Your task to perform on an android device: Do I have any events tomorrow? Image 0: 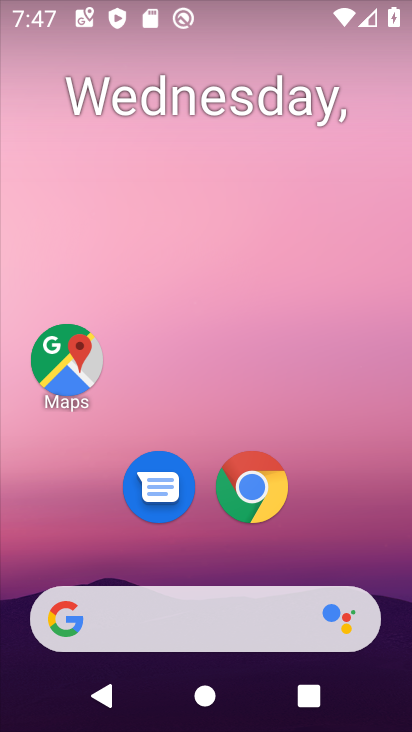
Step 0: drag from (357, 533) to (358, 146)
Your task to perform on an android device: Do I have any events tomorrow? Image 1: 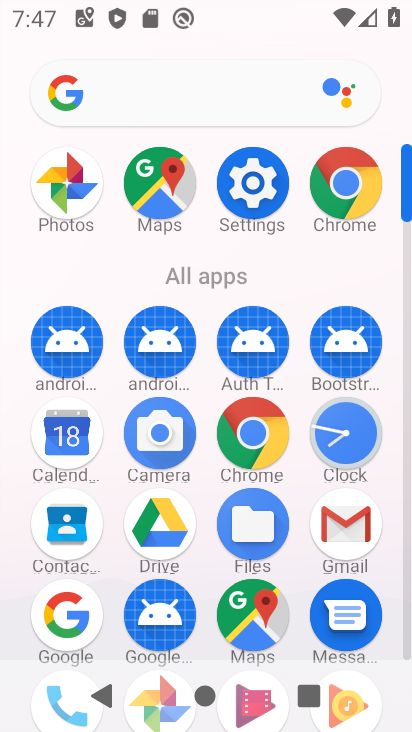
Step 1: click (78, 462)
Your task to perform on an android device: Do I have any events tomorrow? Image 2: 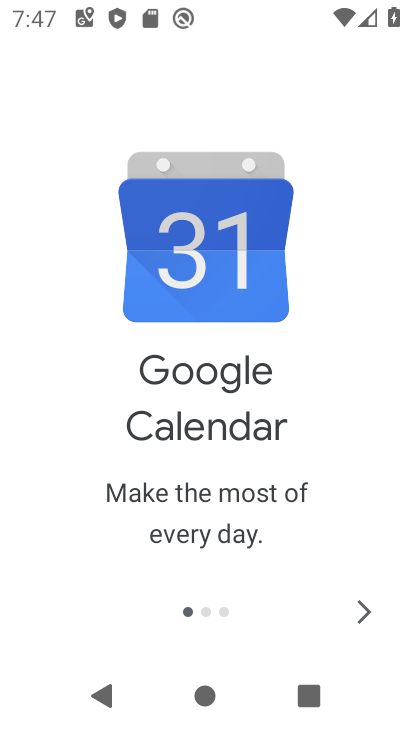
Step 2: click (364, 626)
Your task to perform on an android device: Do I have any events tomorrow? Image 3: 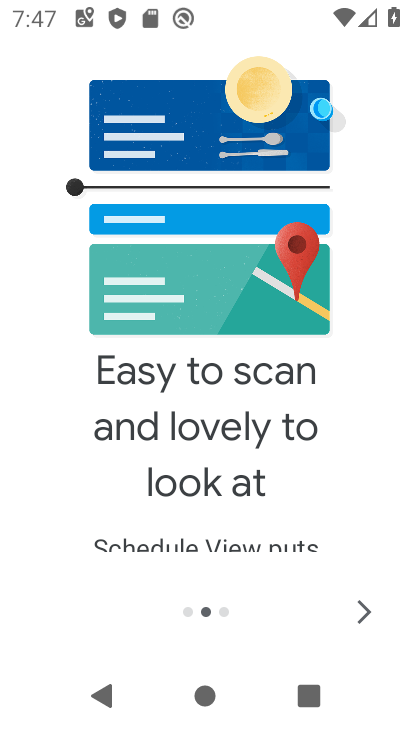
Step 3: click (364, 626)
Your task to perform on an android device: Do I have any events tomorrow? Image 4: 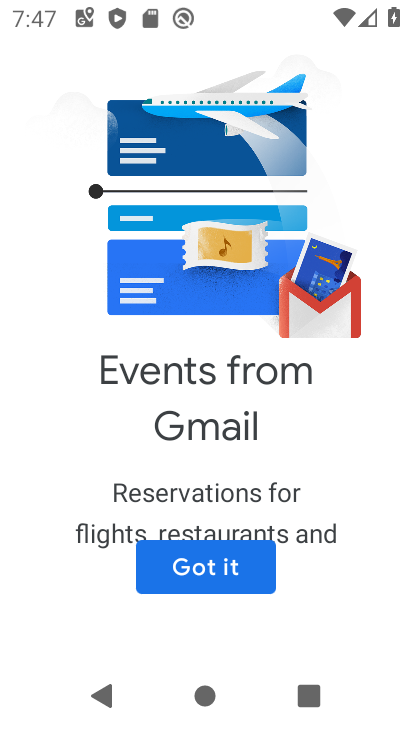
Step 4: click (236, 569)
Your task to perform on an android device: Do I have any events tomorrow? Image 5: 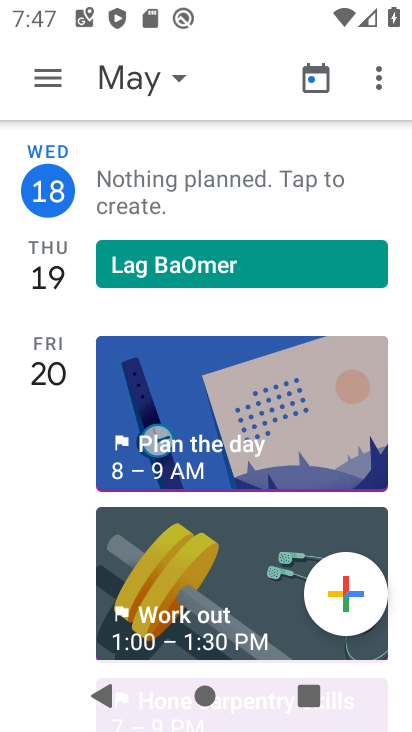
Step 5: click (176, 76)
Your task to perform on an android device: Do I have any events tomorrow? Image 6: 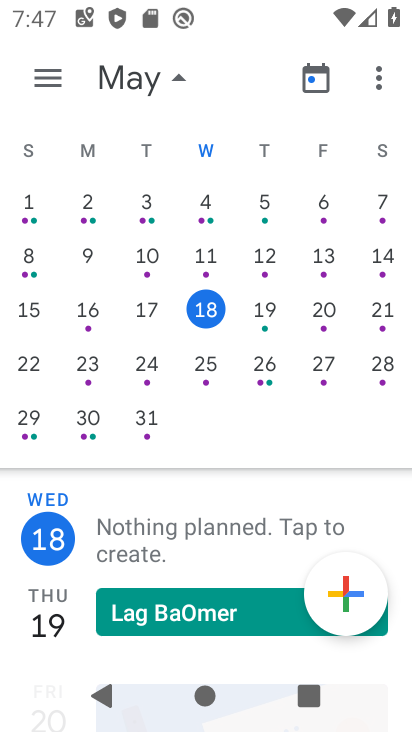
Step 6: click (327, 318)
Your task to perform on an android device: Do I have any events tomorrow? Image 7: 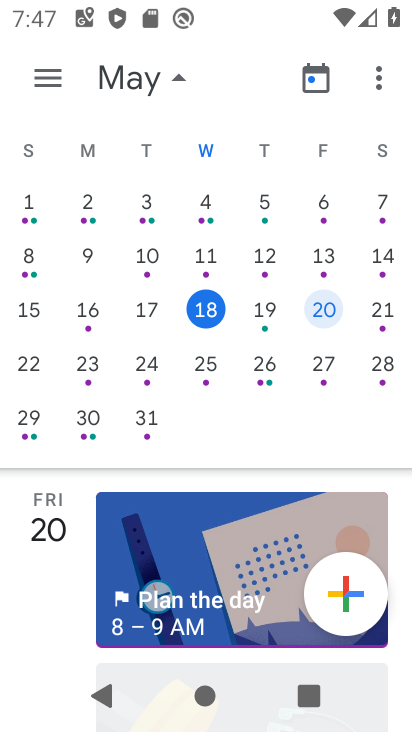
Step 7: drag from (294, 524) to (258, 330)
Your task to perform on an android device: Do I have any events tomorrow? Image 8: 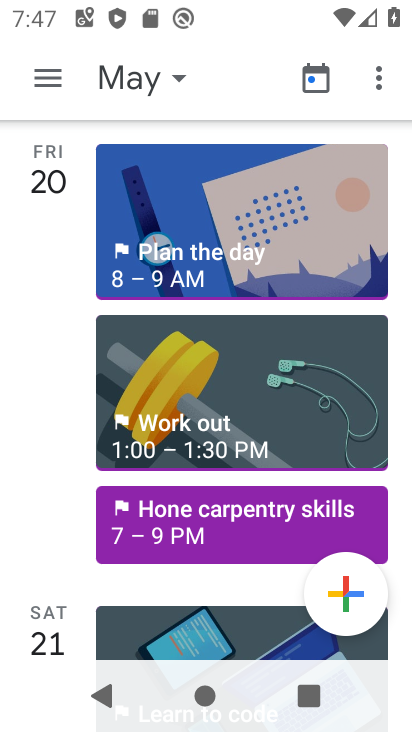
Step 8: click (245, 230)
Your task to perform on an android device: Do I have any events tomorrow? Image 9: 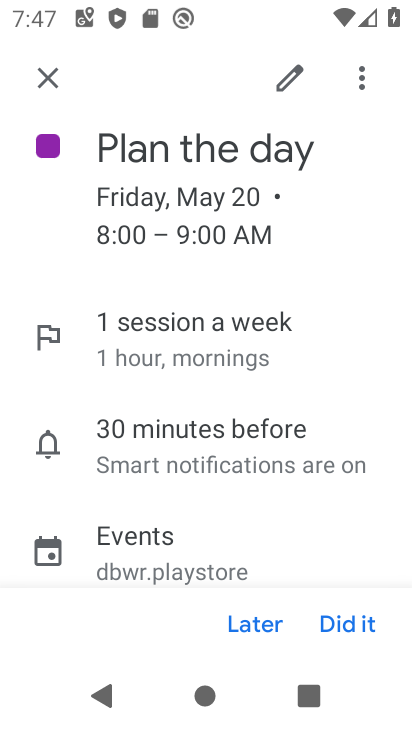
Step 9: task complete